Your task to perform on an android device: add a contact Image 0: 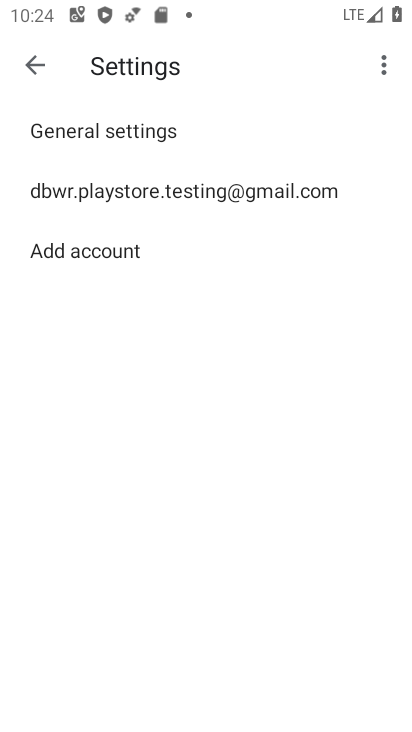
Step 0: press home button
Your task to perform on an android device: add a contact Image 1: 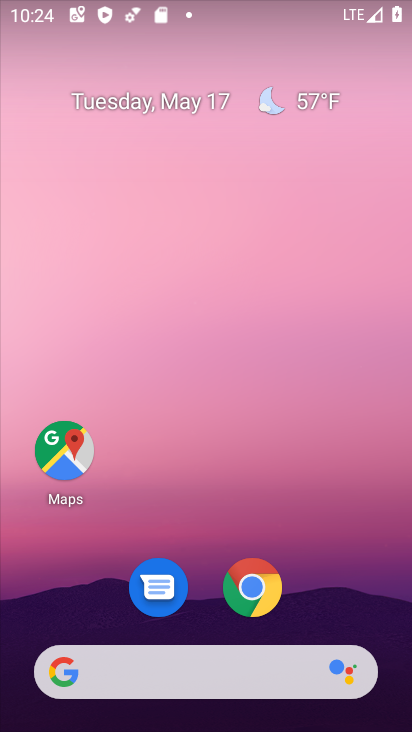
Step 1: drag from (346, 598) to (259, 34)
Your task to perform on an android device: add a contact Image 2: 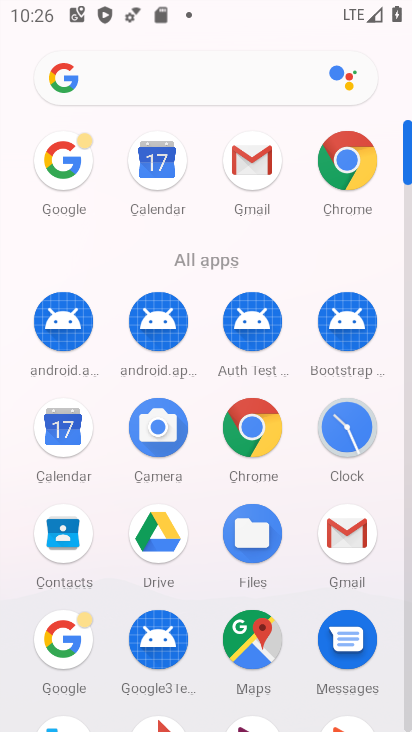
Step 2: click (77, 545)
Your task to perform on an android device: add a contact Image 3: 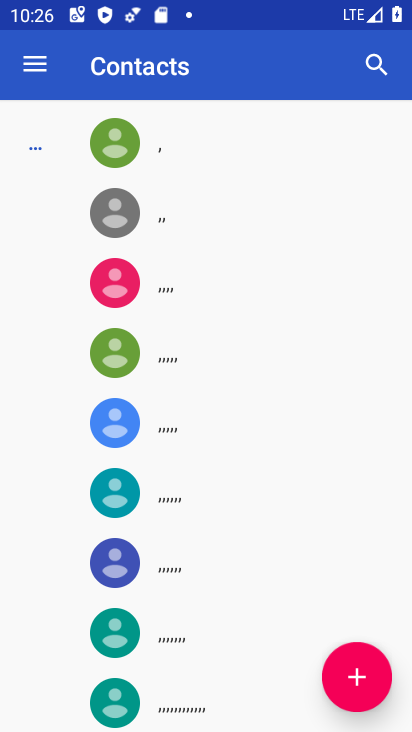
Step 3: click (344, 658)
Your task to perform on an android device: add a contact Image 4: 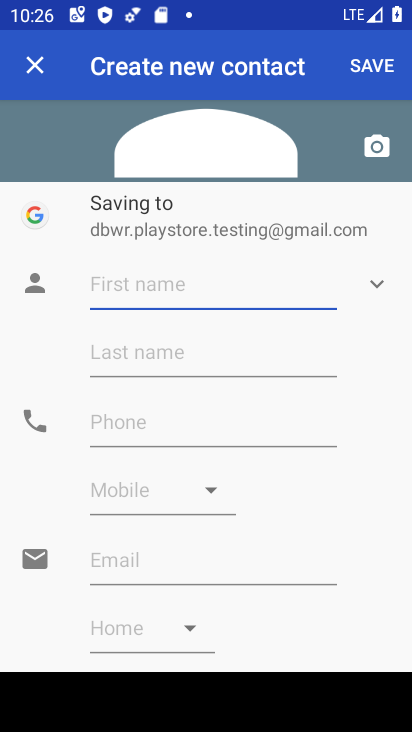
Step 4: type "andrie"
Your task to perform on an android device: add a contact Image 5: 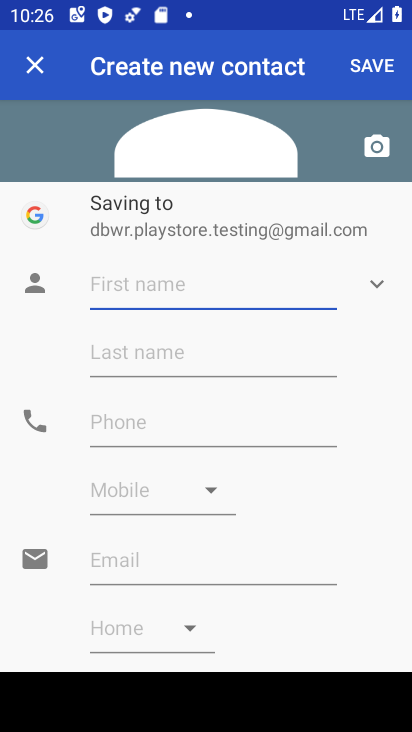
Step 5: click (371, 62)
Your task to perform on an android device: add a contact Image 6: 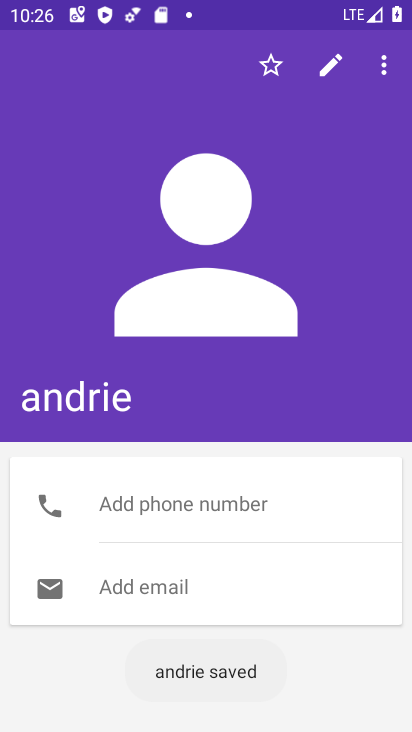
Step 6: task complete